Your task to perform on an android device: turn off wifi Image 0: 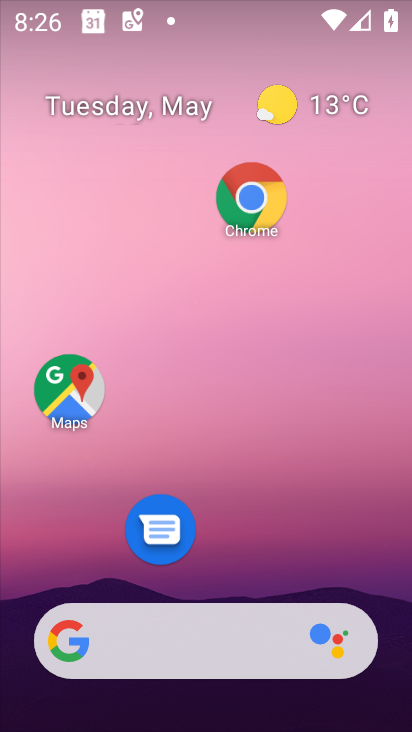
Step 0: drag from (306, 548) to (305, 42)
Your task to perform on an android device: turn off wifi Image 1: 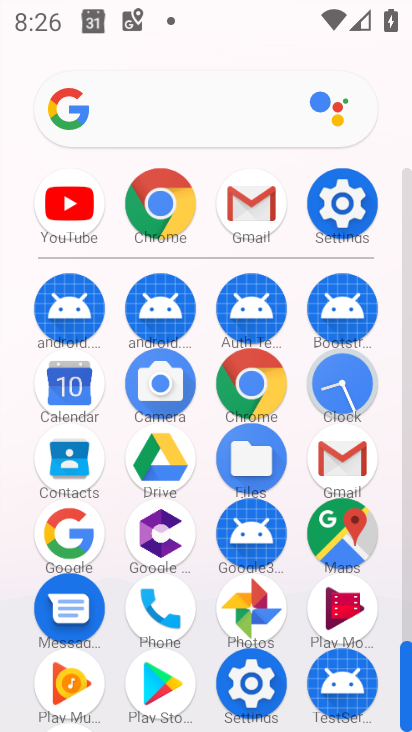
Step 1: click (329, 192)
Your task to perform on an android device: turn off wifi Image 2: 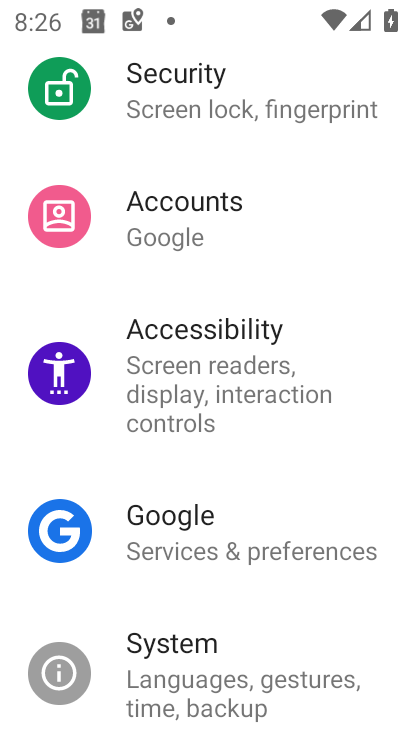
Step 2: drag from (241, 249) to (311, 422)
Your task to perform on an android device: turn off wifi Image 3: 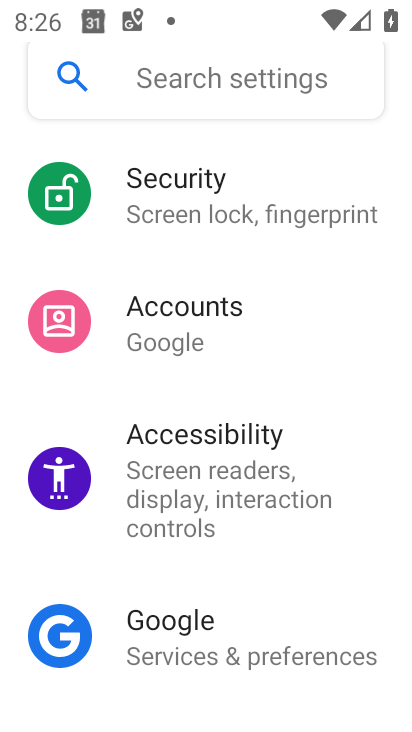
Step 3: click (313, 428)
Your task to perform on an android device: turn off wifi Image 4: 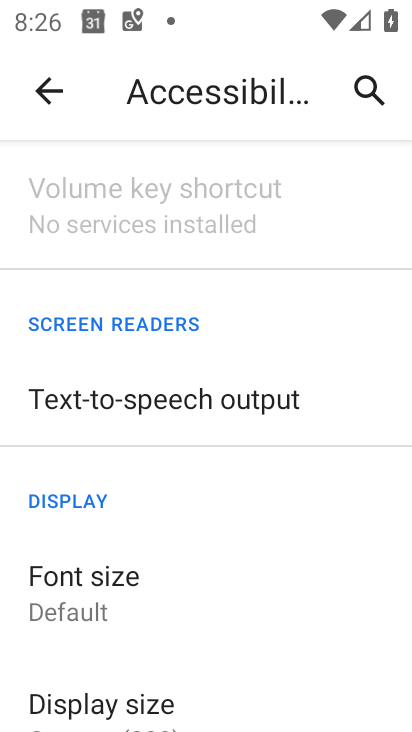
Step 4: click (44, 84)
Your task to perform on an android device: turn off wifi Image 5: 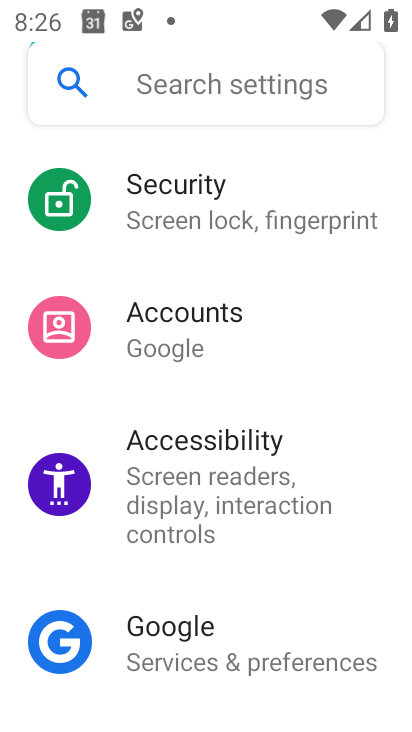
Step 5: drag from (236, 262) to (321, 701)
Your task to perform on an android device: turn off wifi Image 6: 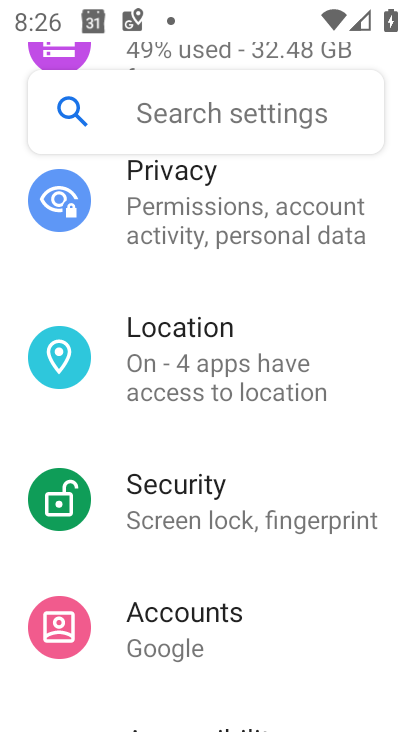
Step 6: drag from (284, 313) to (289, 434)
Your task to perform on an android device: turn off wifi Image 7: 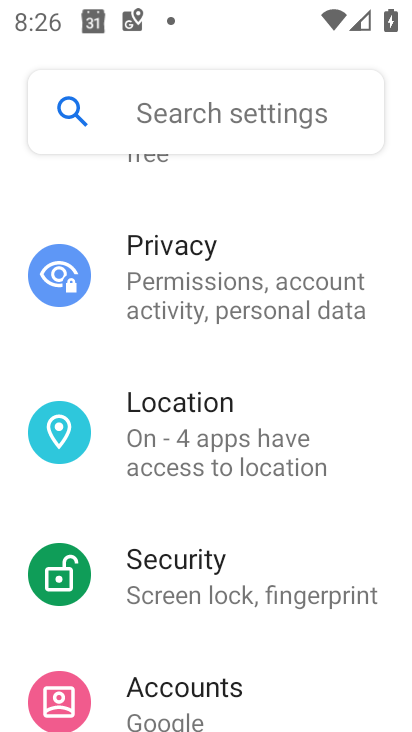
Step 7: drag from (288, 231) to (395, 687)
Your task to perform on an android device: turn off wifi Image 8: 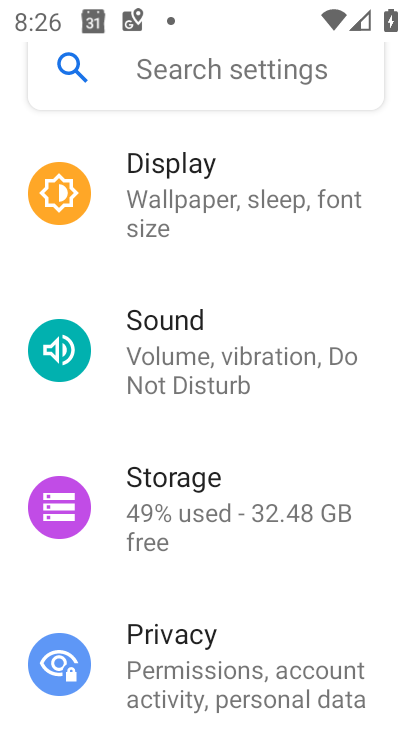
Step 8: drag from (259, 208) to (261, 474)
Your task to perform on an android device: turn off wifi Image 9: 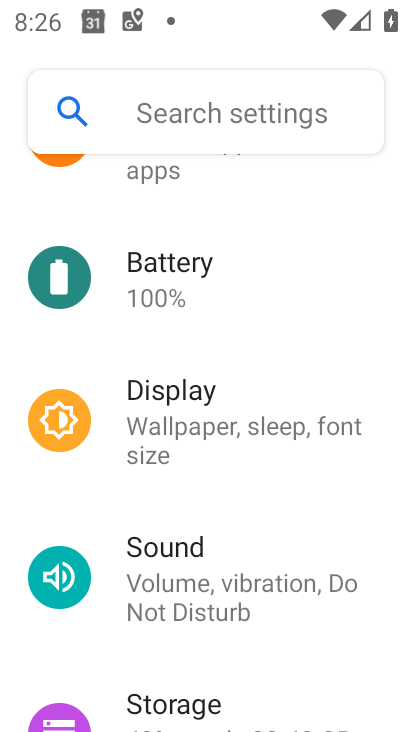
Step 9: click (261, 474)
Your task to perform on an android device: turn off wifi Image 10: 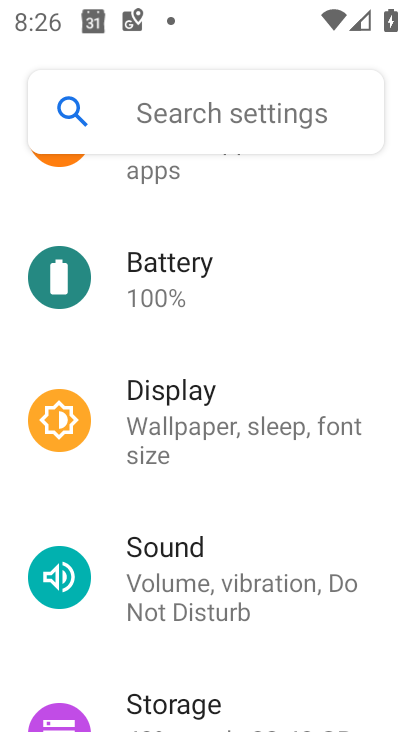
Step 10: click (261, 474)
Your task to perform on an android device: turn off wifi Image 11: 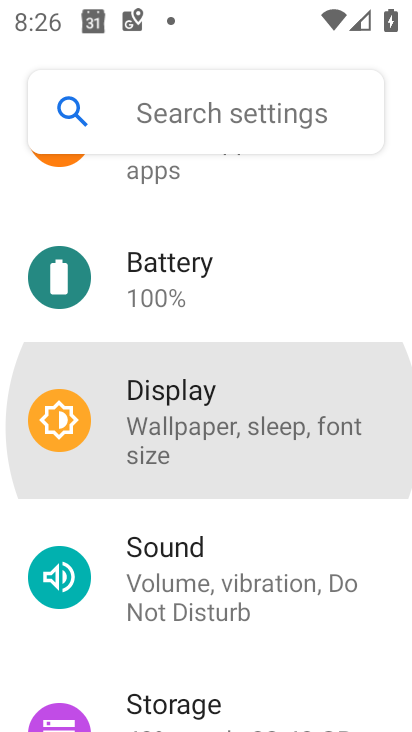
Step 11: click (261, 474)
Your task to perform on an android device: turn off wifi Image 12: 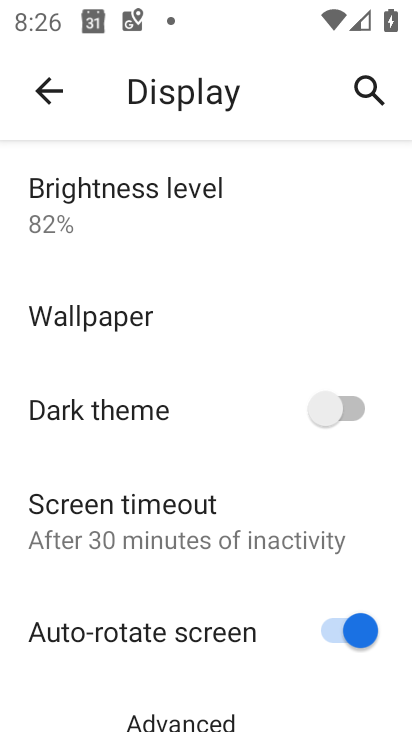
Step 12: click (57, 97)
Your task to perform on an android device: turn off wifi Image 13: 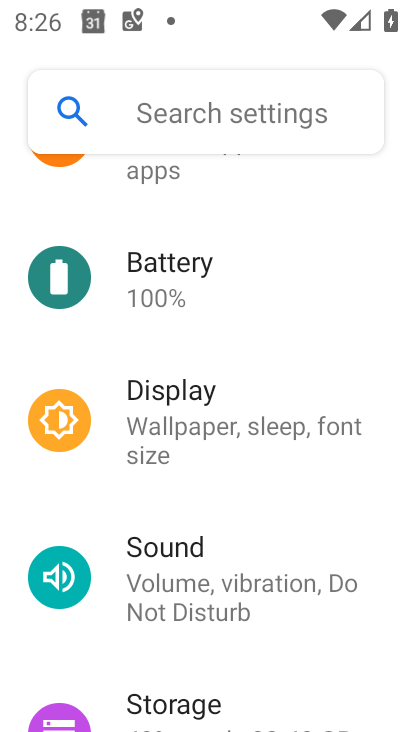
Step 13: drag from (223, 241) to (276, 717)
Your task to perform on an android device: turn off wifi Image 14: 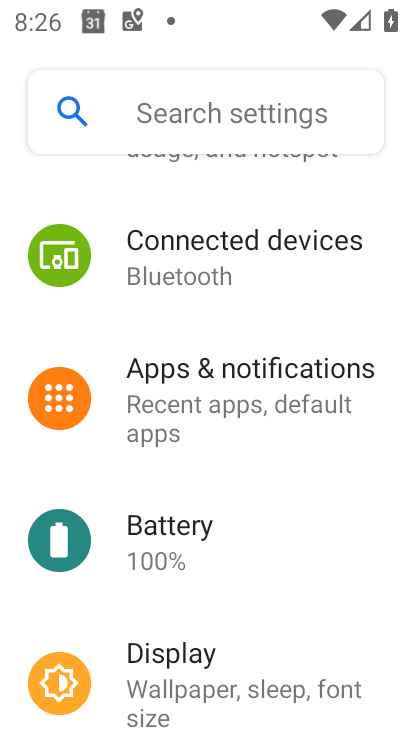
Step 14: drag from (259, 272) to (313, 486)
Your task to perform on an android device: turn off wifi Image 15: 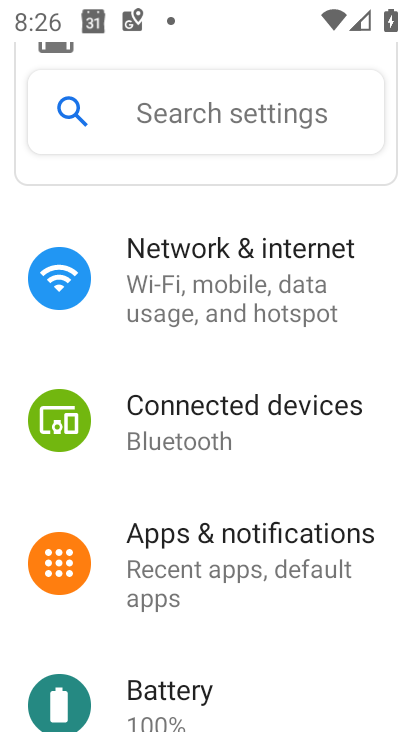
Step 15: click (293, 257)
Your task to perform on an android device: turn off wifi Image 16: 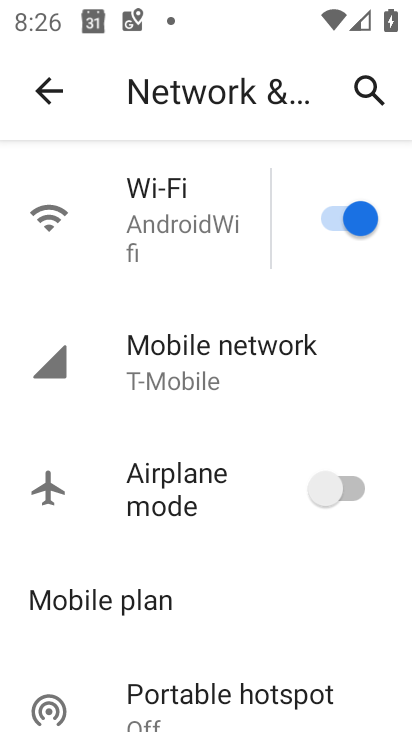
Step 16: click (328, 220)
Your task to perform on an android device: turn off wifi Image 17: 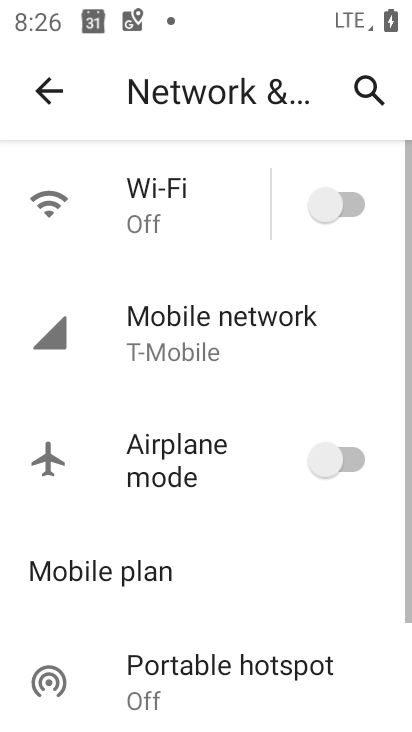
Step 17: task complete